Your task to perform on an android device: turn on showing notifications on the lock screen Image 0: 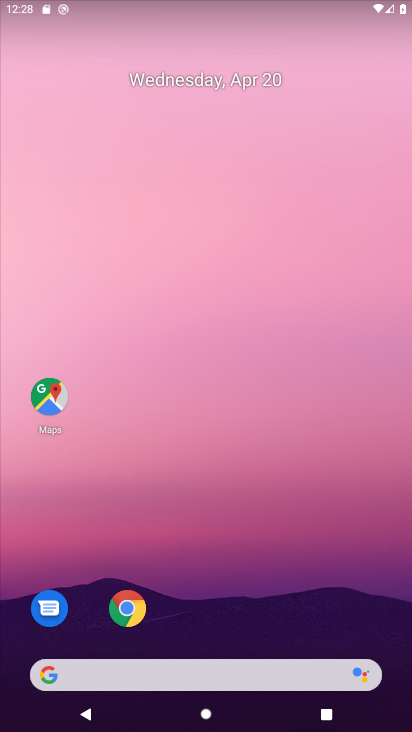
Step 0: drag from (215, 438) to (300, 35)
Your task to perform on an android device: turn on showing notifications on the lock screen Image 1: 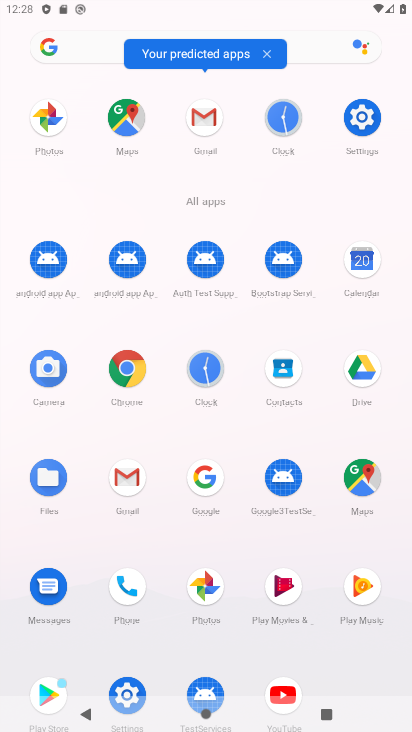
Step 1: click (131, 685)
Your task to perform on an android device: turn on showing notifications on the lock screen Image 2: 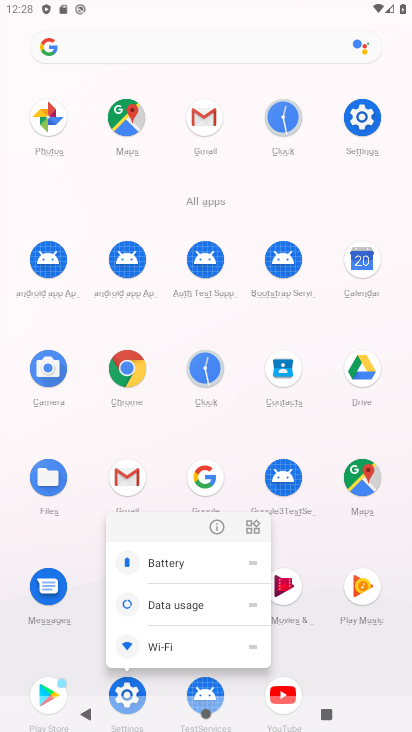
Step 2: click (136, 674)
Your task to perform on an android device: turn on showing notifications on the lock screen Image 3: 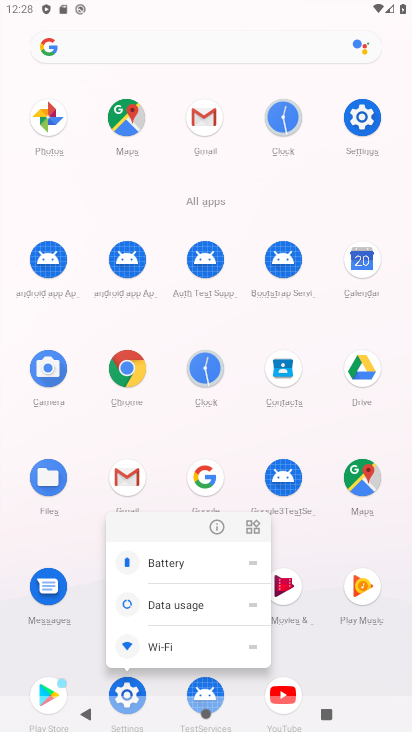
Step 3: click (354, 122)
Your task to perform on an android device: turn on showing notifications on the lock screen Image 4: 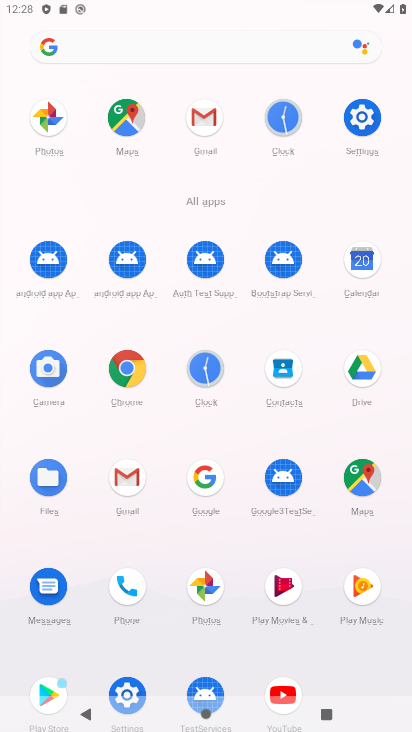
Step 4: click (358, 124)
Your task to perform on an android device: turn on showing notifications on the lock screen Image 5: 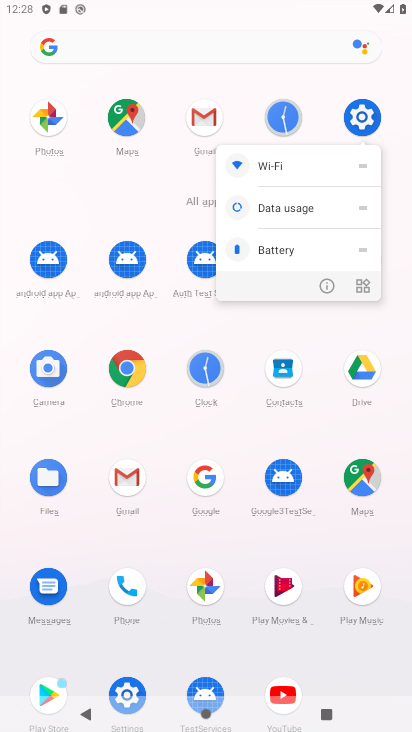
Step 5: click (357, 118)
Your task to perform on an android device: turn on showing notifications on the lock screen Image 6: 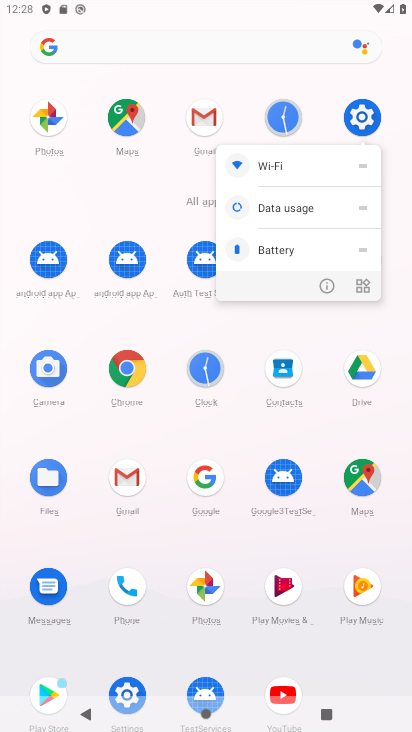
Step 6: click (368, 113)
Your task to perform on an android device: turn on showing notifications on the lock screen Image 7: 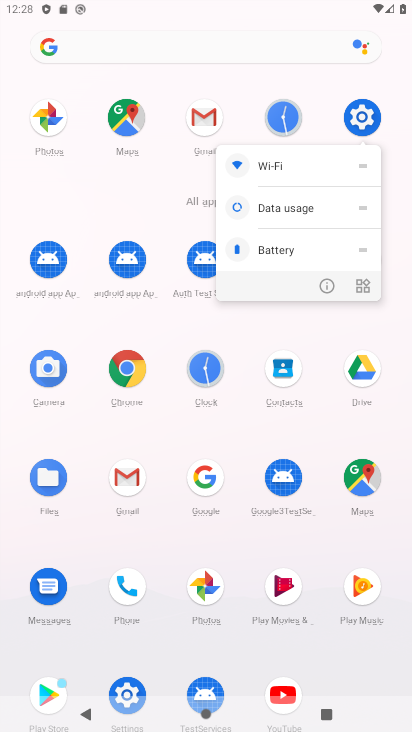
Step 7: click (364, 109)
Your task to perform on an android device: turn on showing notifications on the lock screen Image 8: 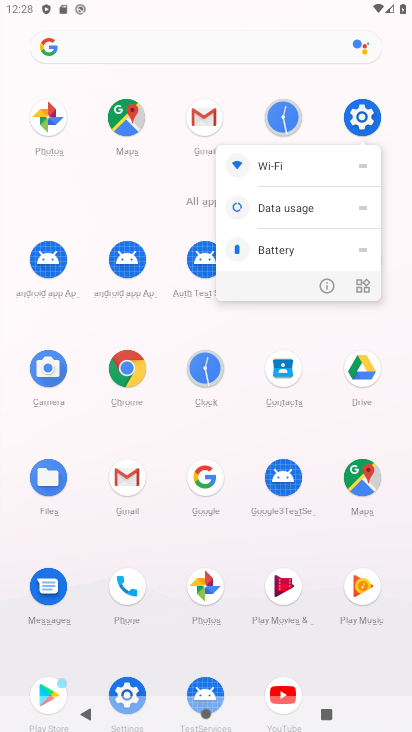
Step 8: click (359, 112)
Your task to perform on an android device: turn on showing notifications on the lock screen Image 9: 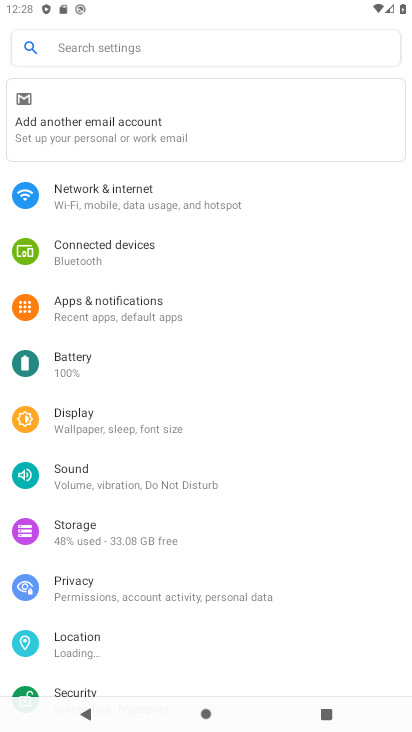
Step 9: click (140, 318)
Your task to perform on an android device: turn on showing notifications on the lock screen Image 10: 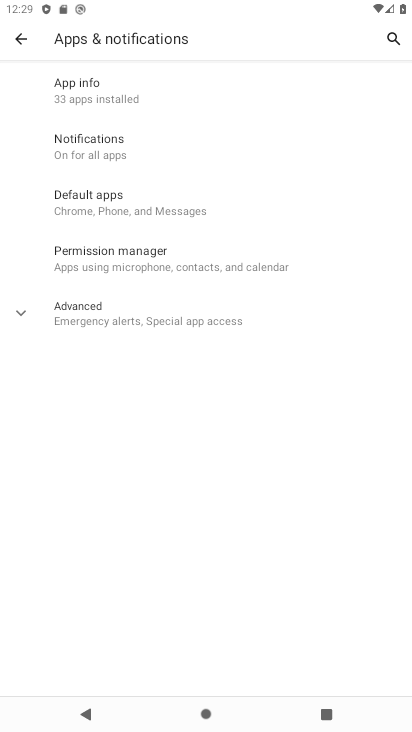
Step 10: click (132, 151)
Your task to perform on an android device: turn on showing notifications on the lock screen Image 11: 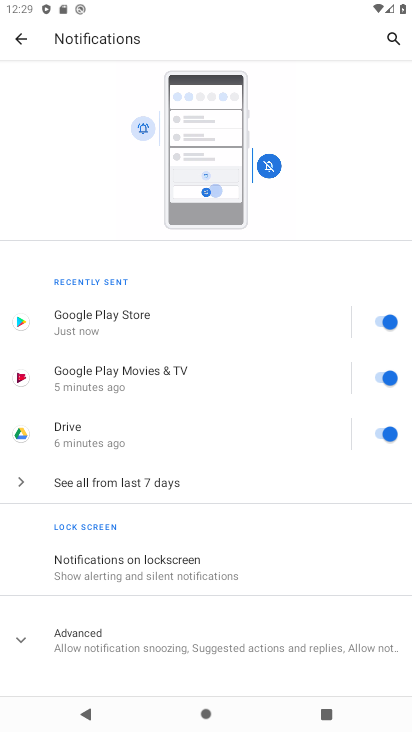
Step 11: click (210, 563)
Your task to perform on an android device: turn on showing notifications on the lock screen Image 12: 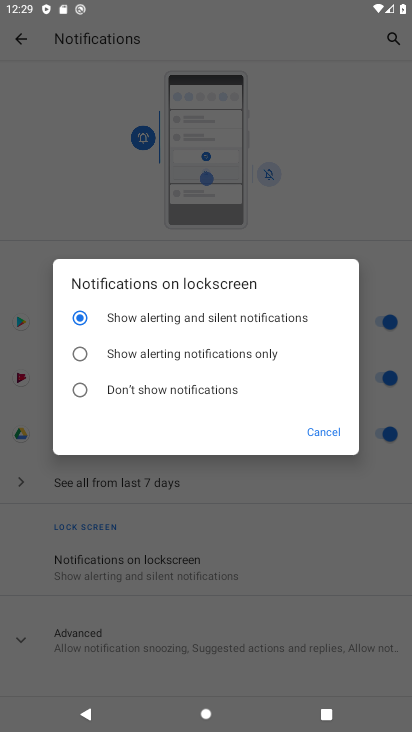
Step 12: task complete